Your task to perform on an android device: Search for vegetarian restaurants on Maps Image 0: 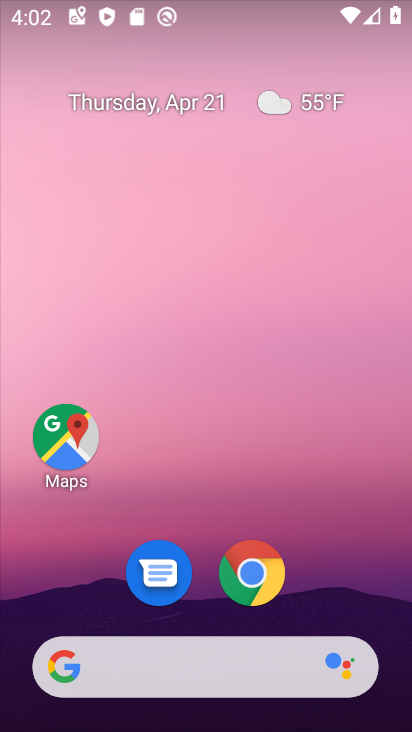
Step 0: click (60, 434)
Your task to perform on an android device: Search for vegetarian restaurants on Maps Image 1: 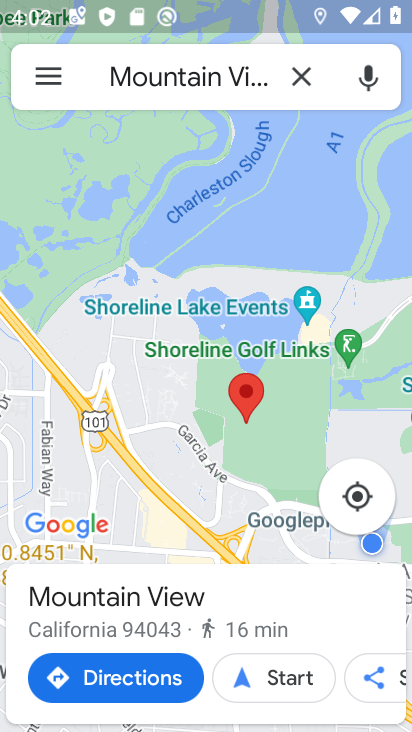
Step 1: click (302, 81)
Your task to perform on an android device: Search for vegetarian restaurants on Maps Image 2: 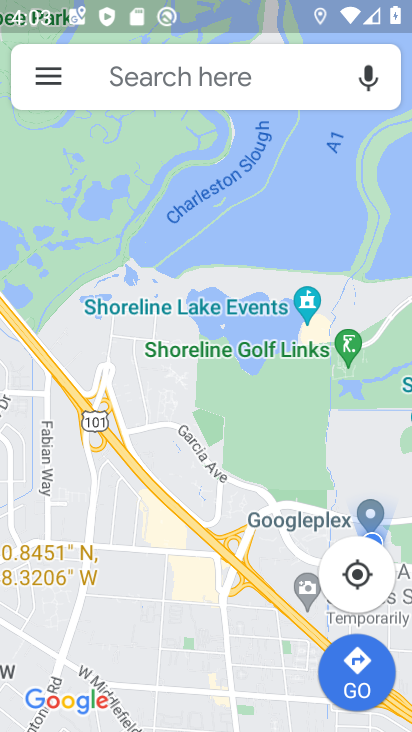
Step 2: click (142, 75)
Your task to perform on an android device: Search for vegetarian restaurants on Maps Image 3: 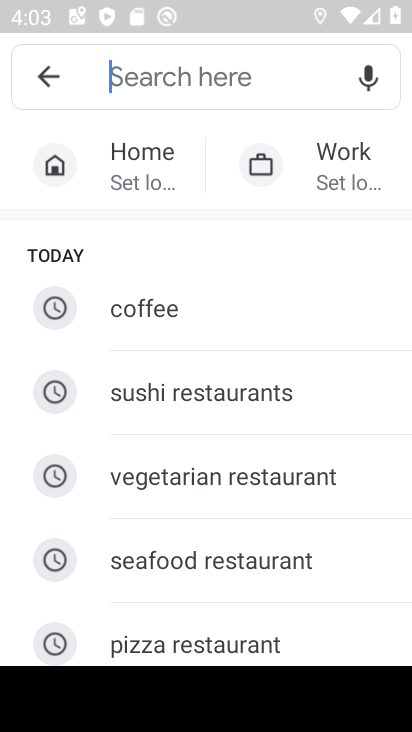
Step 3: type "vegetarian restaurants"
Your task to perform on an android device: Search for vegetarian restaurants on Maps Image 4: 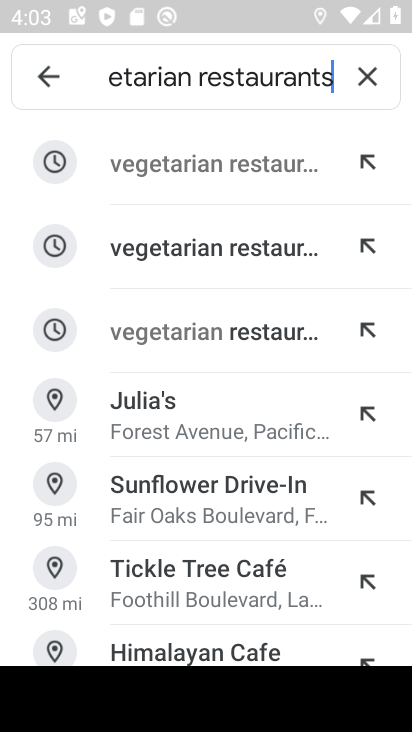
Step 4: click (175, 161)
Your task to perform on an android device: Search for vegetarian restaurants on Maps Image 5: 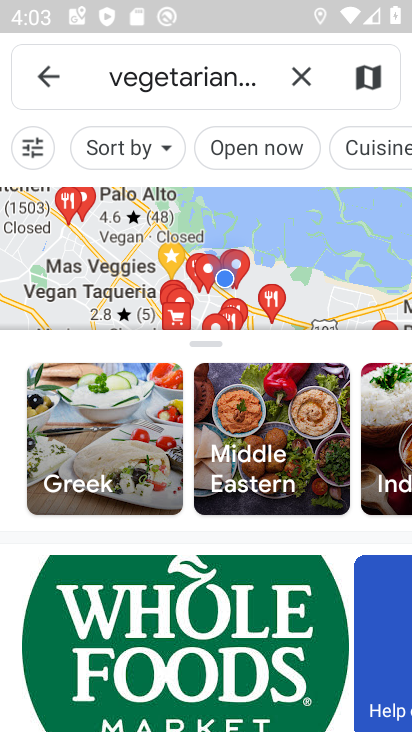
Step 5: task complete